Your task to perform on an android device: see sites visited before in the chrome app Image 0: 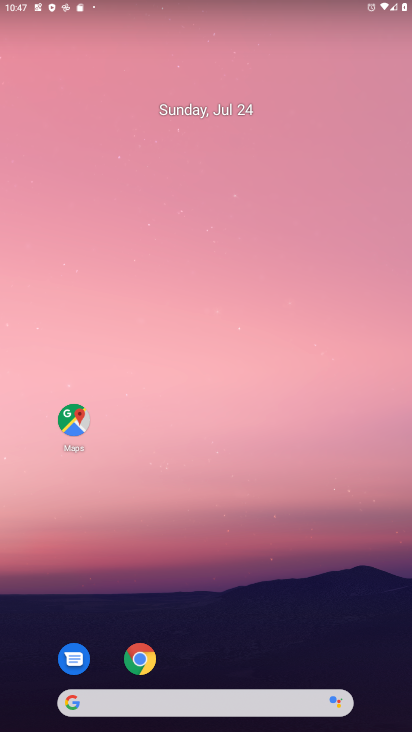
Step 0: click (132, 648)
Your task to perform on an android device: see sites visited before in the chrome app Image 1: 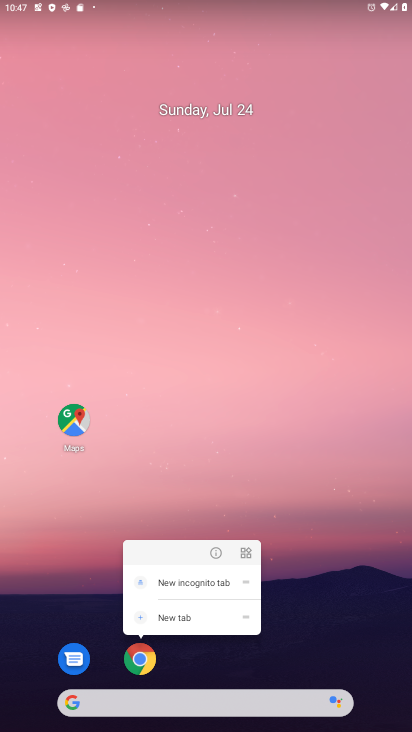
Step 1: click (132, 648)
Your task to perform on an android device: see sites visited before in the chrome app Image 2: 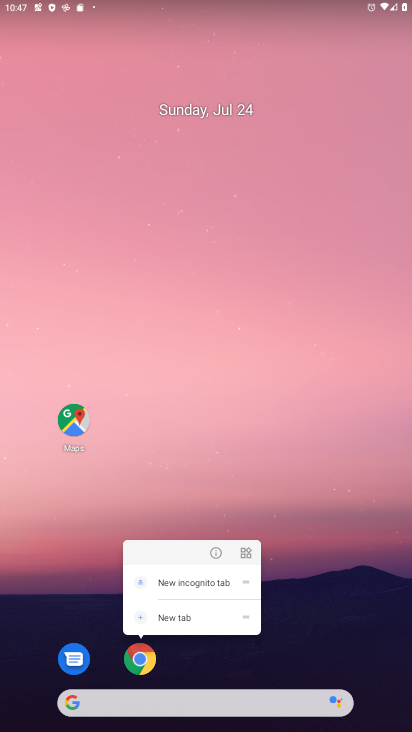
Step 2: click (133, 657)
Your task to perform on an android device: see sites visited before in the chrome app Image 3: 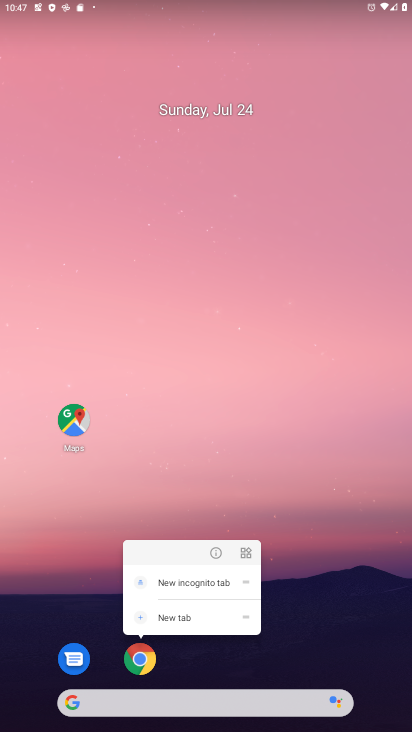
Step 3: click (138, 655)
Your task to perform on an android device: see sites visited before in the chrome app Image 4: 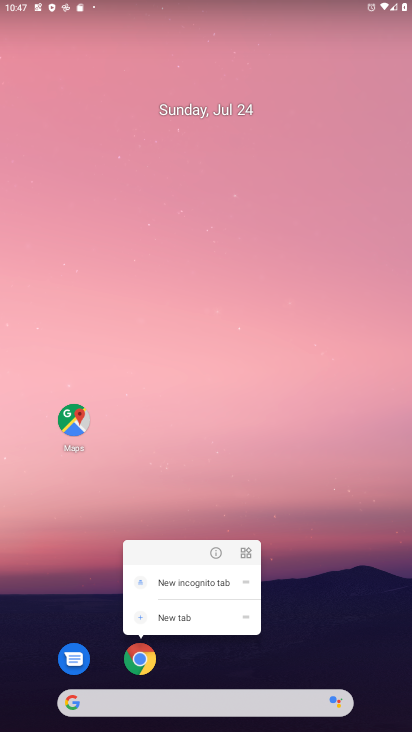
Step 4: click (138, 655)
Your task to perform on an android device: see sites visited before in the chrome app Image 5: 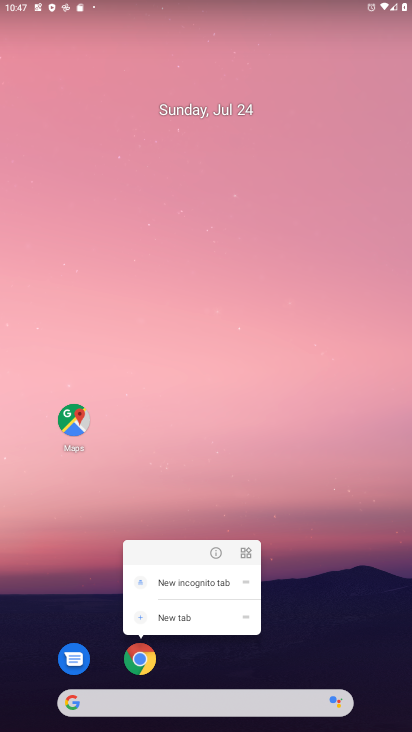
Step 5: click (138, 655)
Your task to perform on an android device: see sites visited before in the chrome app Image 6: 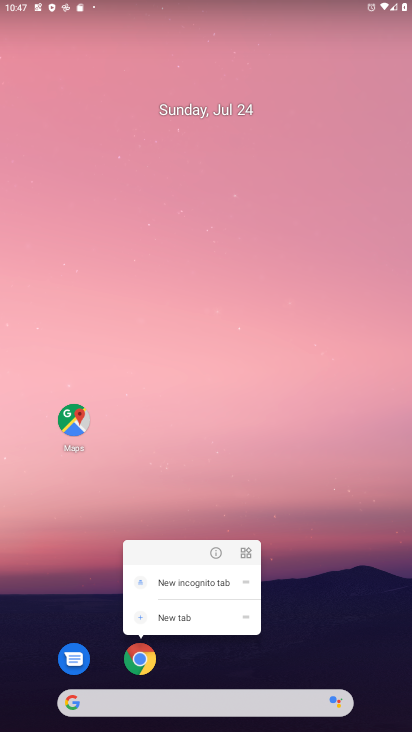
Step 6: click (138, 655)
Your task to perform on an android device: see sites visited before in the chrome app Image 7: 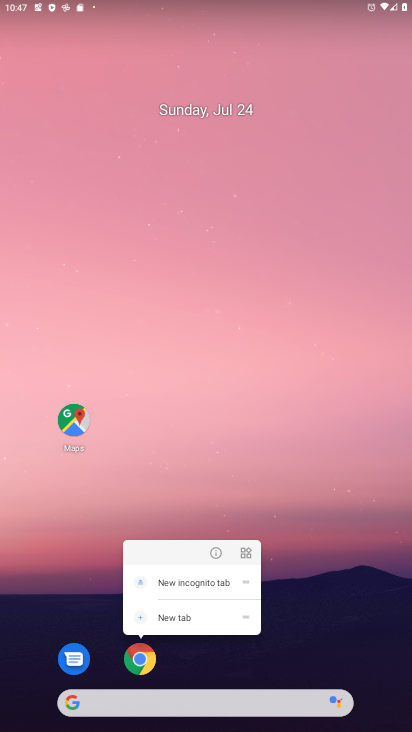
Step 7: click (138, 655)
Your task to perform on an android device: see sites visited before in the chrome app Image 8: 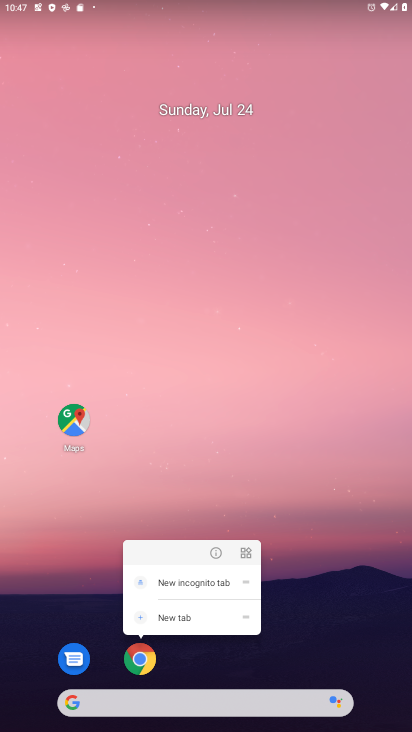
Step 8: click (138, 656)
Your task to perform on an android device: see sites visited before in the chrome app Image 9: 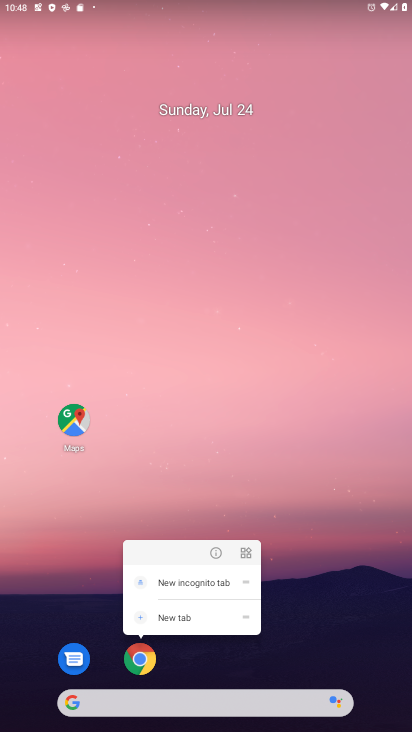
Step 9: click (142, 676)
Your task to perform on an android device: see sites visited before in the chrome app Image 10: 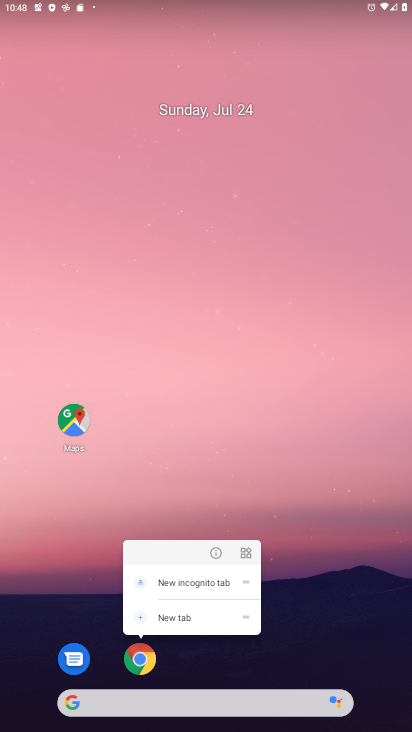
Step 10: click (136, 660)
Your task to perform on an android device: see sites visited before in the chrome app Image 11: 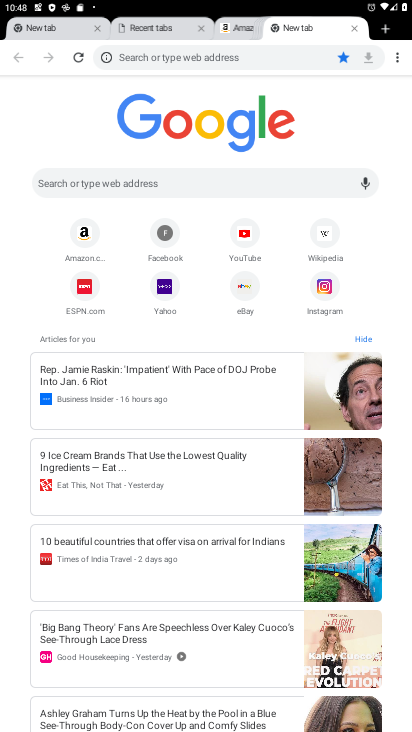
Step 11: click (395, 54)
Your task to perform on an android device: see sites visited before in the chrome app Image 12: 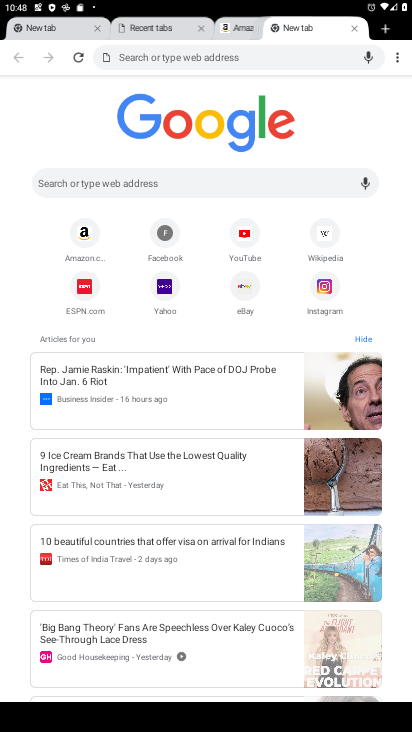
Step 12: click (398, 54)
Your task to perform on an android device: see sites visited before in the chrome app Image 13: 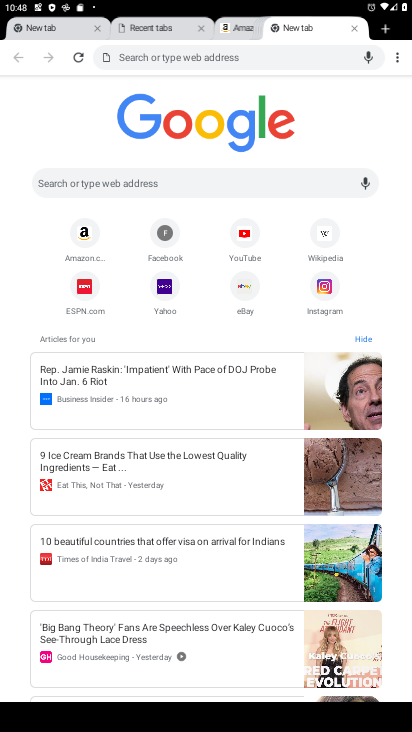
Step 13: click (398, 54)
Your task to perform on an android device: see sites visited before in the chrome app Image 14: 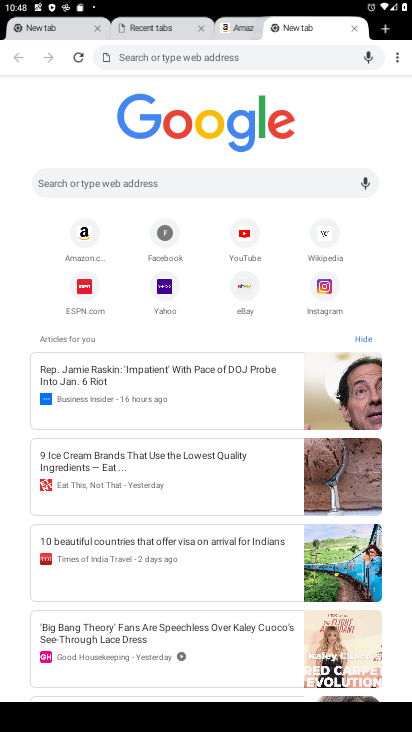
Step 14: click (398, 54)
Your task to perform on an android device: see sites visited before in the chrome app Image 15: 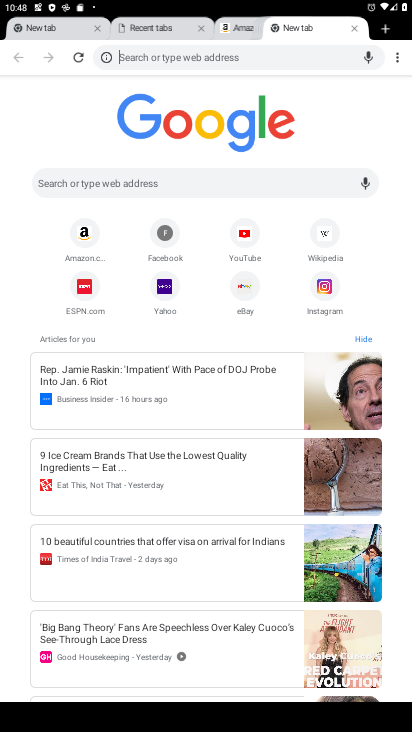
Step 15: click (398, 54)
Your task to perform on an android device: see sites visited before in the chrome app Image 16: 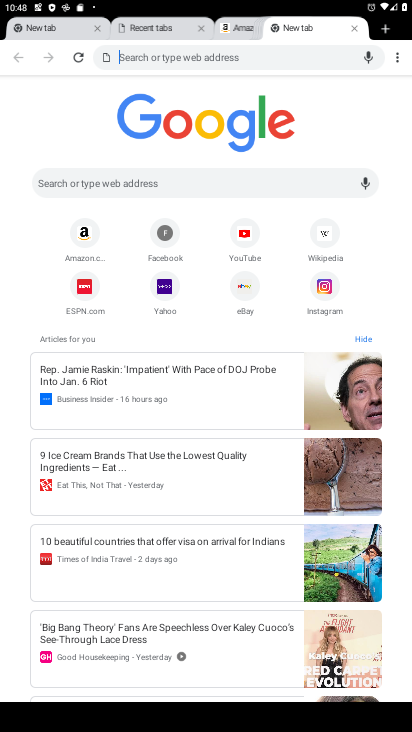
Step 16: click (398, 53)
Your task to perform on an android device: see sites visited before in the chrome app Image 17: 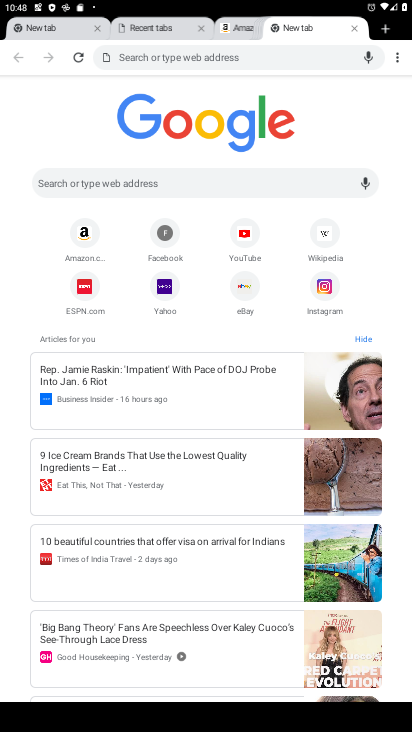
Step 17: click (398, 53)
Your task to perform on an android device: see sites visited before in the chrome app Image 18: 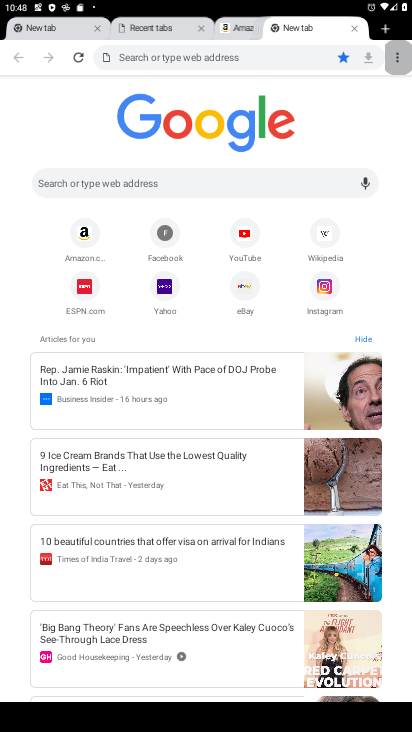
Step 18: click (398, 53)
Your task to perform on an android device: see sites visited before in the chrome app Image 19: 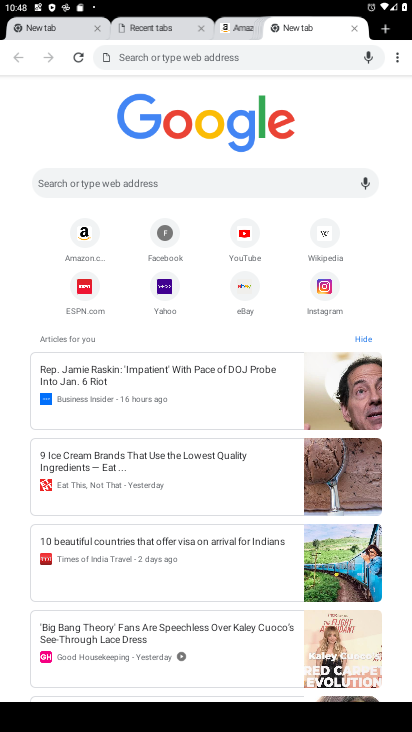
Step 19: task complete